Your task to perform on an android device: check android version Image 0: 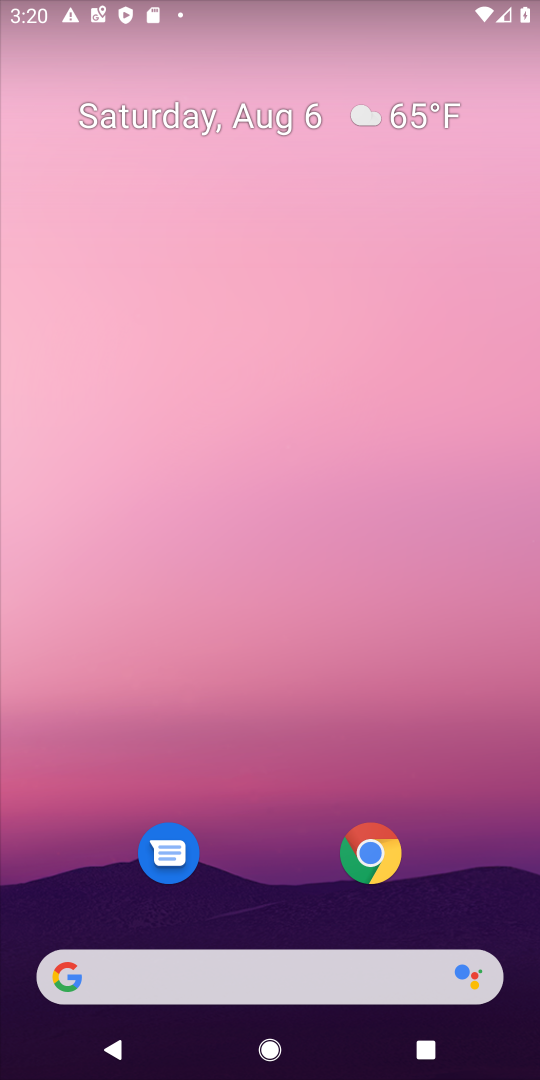
Step 0: drag from (277, 788) to (430, 123)
Your task to perform on an android device: check android version Image 1: 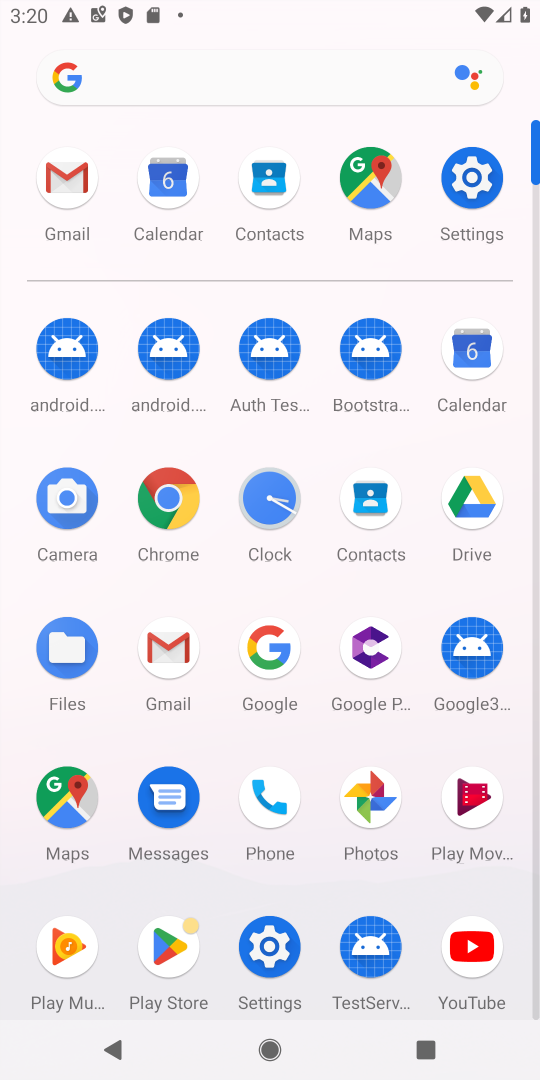
Step 1: click (278, 957)
Your task to perform on an android device: check android version Image 2: 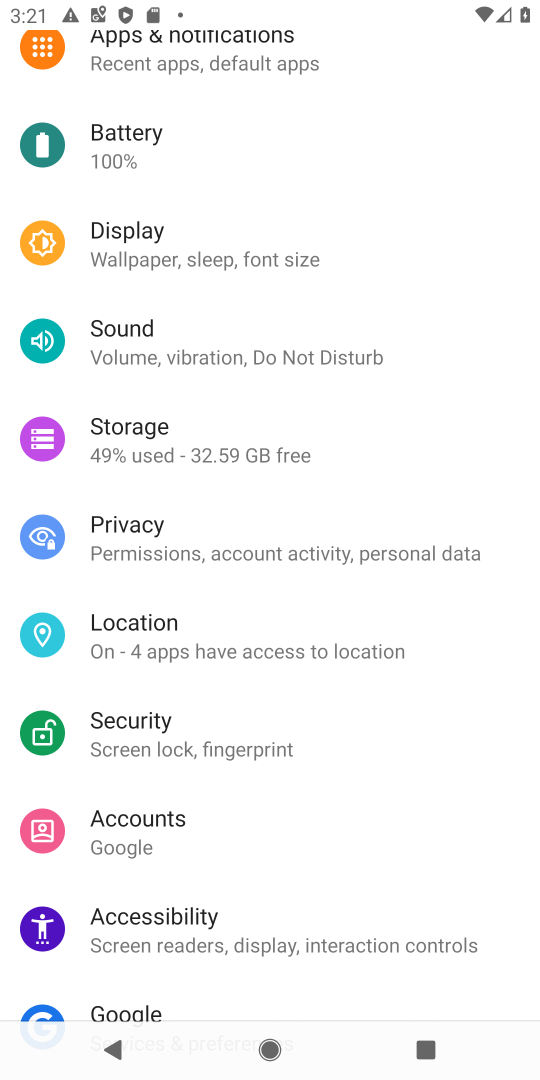
Step 2: drag from (248, 962) to (307, 76)
Your task to perform on an android device: check android version Image 3: 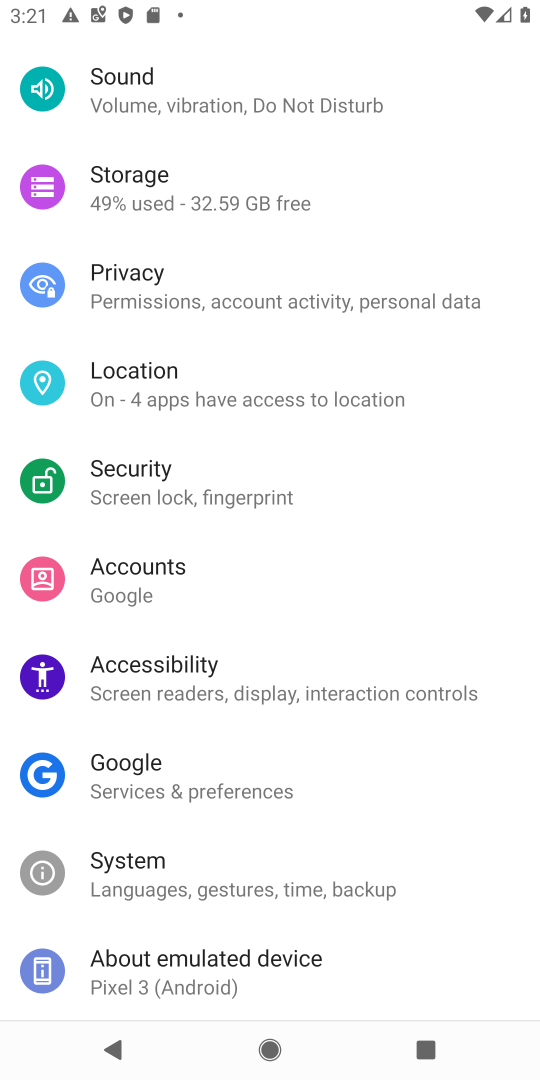
Step 3: click (144, 968)
Your task to perform on an android device: check android version Image 4: 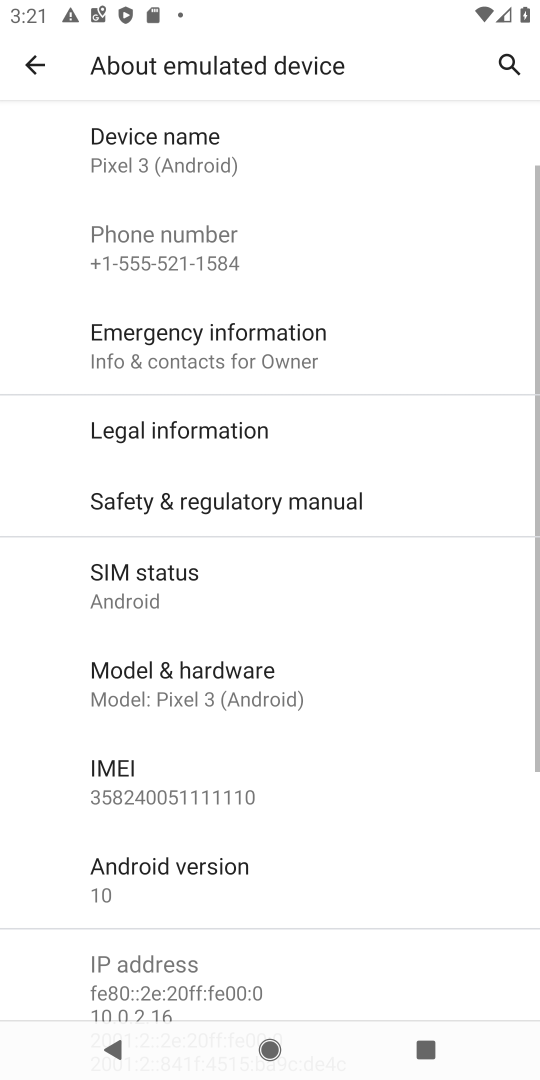
Step 4: click (160, 851)
Your task to perform on an android device: check android version Image 5: 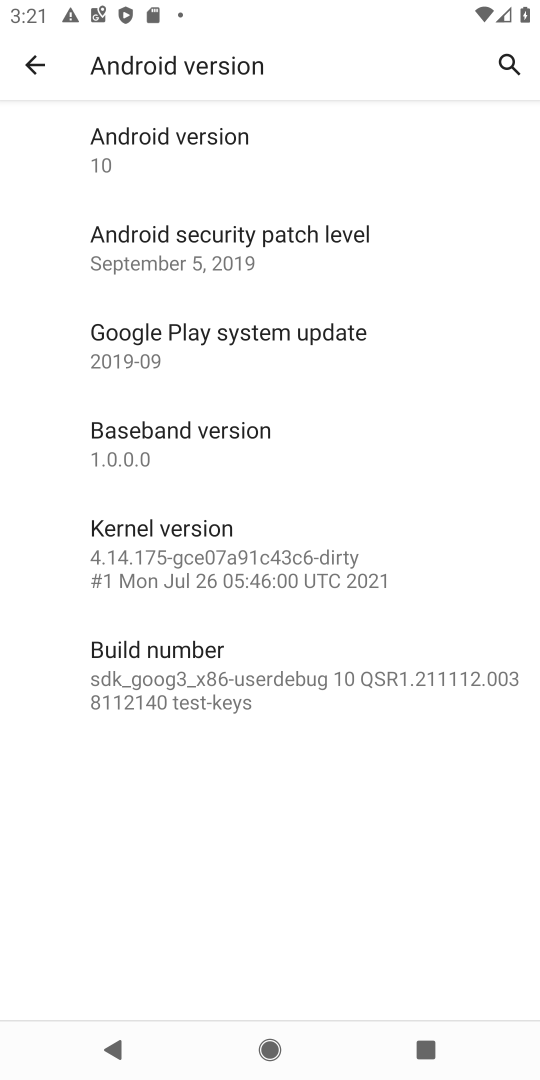
Step 5: task complete